Your task to perform on an android device: make emails show in primary in the gmail app Image 0: 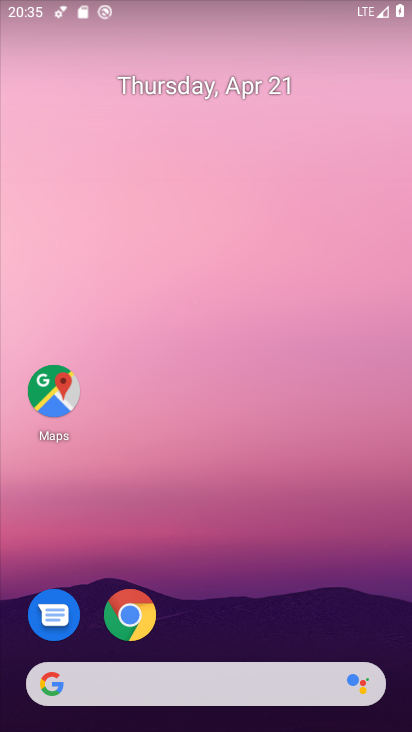
Step 0: drag from (236, 397) to (244, 344)
Your task to perform on an android device: make emails show in primary in the gmail app Image 1: 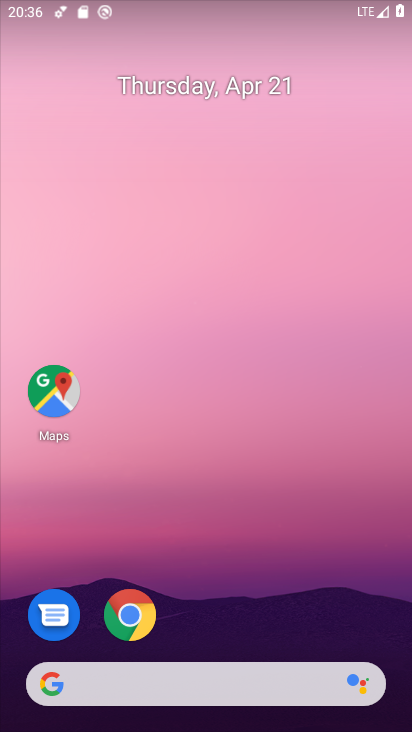
Step 1: drag from (235, 621) to (314, 11)
Your task to perform on an android device: make emails show in primary in the gmail app Image 2: 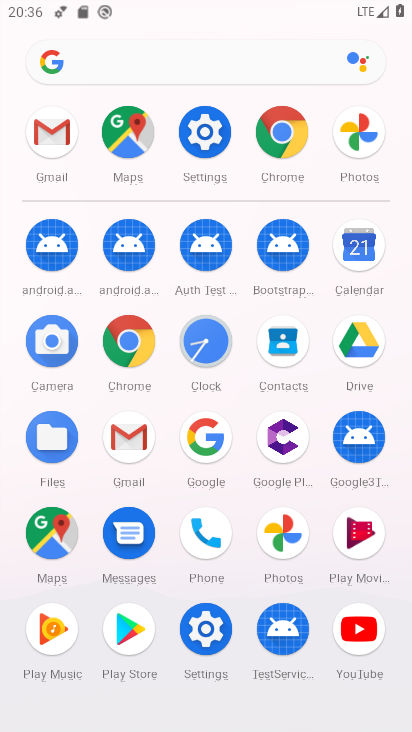
Step 2: click (125, 418)
Your task to perform on an android device: make emails show in primary in the gmail app Image 3: 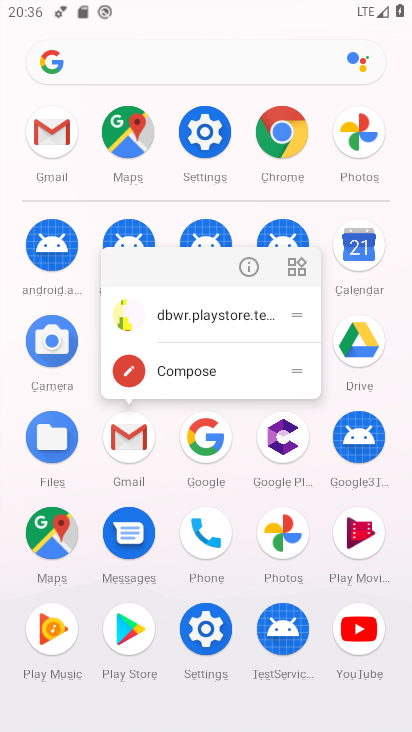
Step 3: click (249, 270)
Your task to perform on an android device: make emails show in primary in the gmail app Image 4: 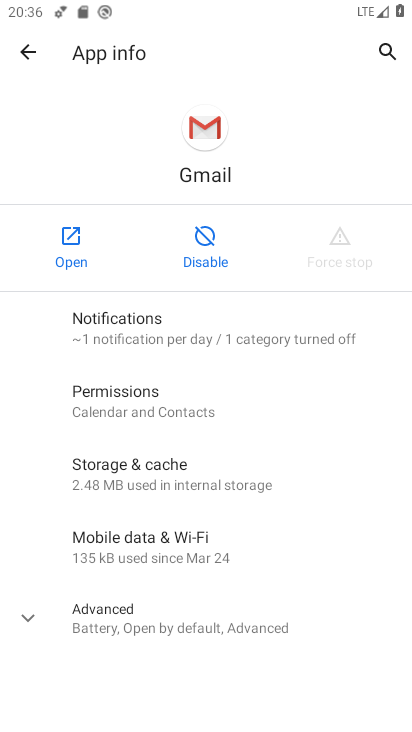
Step 4: click (73, 255)
Your task to perform on an android device: make emails show in primary in the gmail app Image 5: 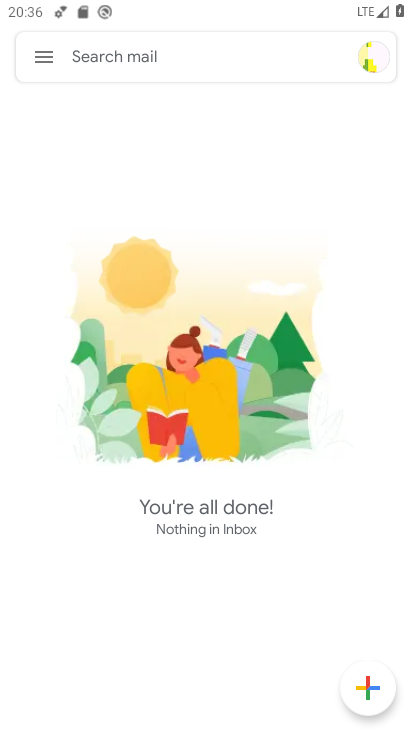
Step 5: click (26, 49)
Your task to perform on an android device: make emails show in primary in the gmail app Image 6: 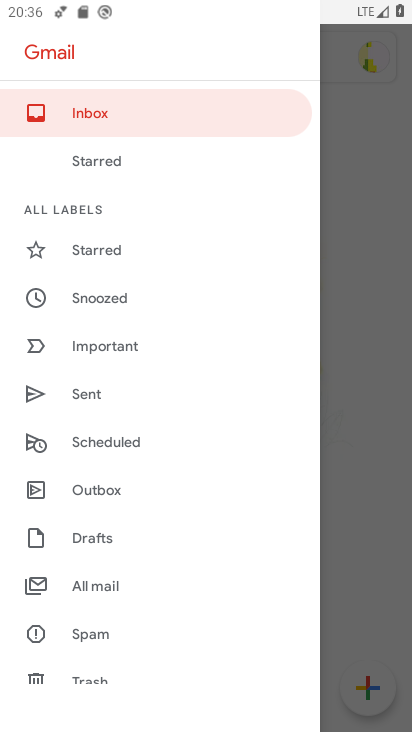
Step 6: drag from (124, 559) to (171, 130)
Your task to perform on an android device: make emails show in primary in the gmail app Image 7: 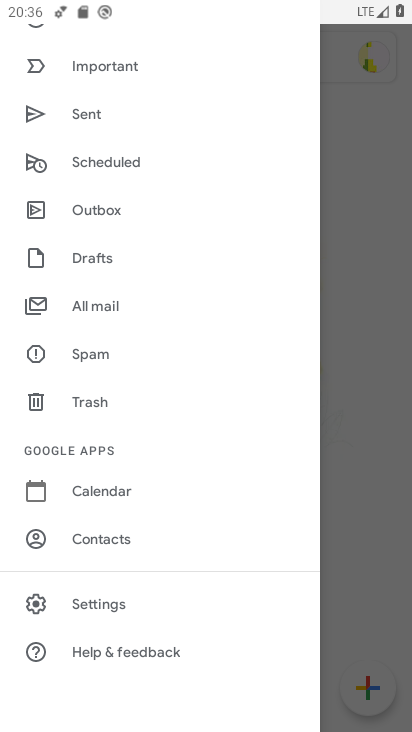
Step 7: drag from (122, 162) to (146, 595)
Your task to perform on an android device: make emails show in primary in the gmail app Image 8: 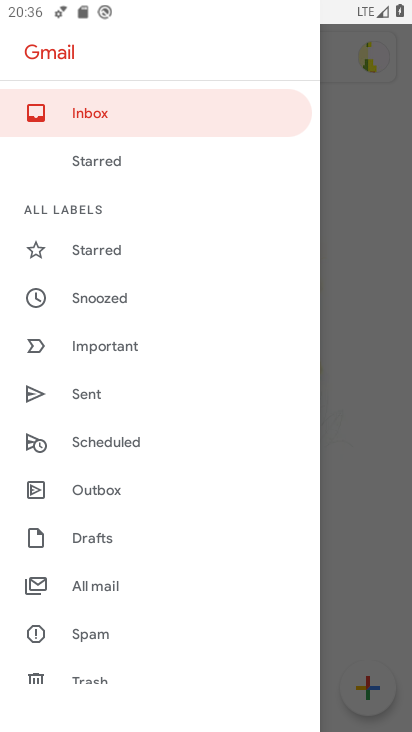
Step 8: click (146, 125)
Your task to perform on an android device: make emails show in primary in the gmail app Image 9: 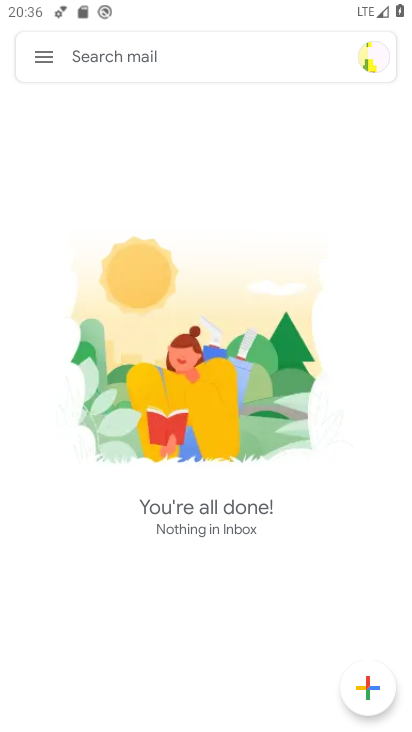
Step 9: task complete